Your task to perform on an android device: Open settings on Google Maps Image 0: 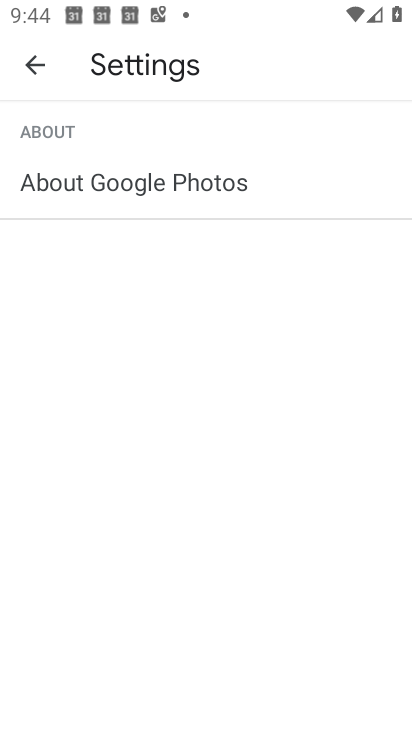
Step 0: press home button
Your task to perform on an android device: Open settings on Google Maps Image 1: 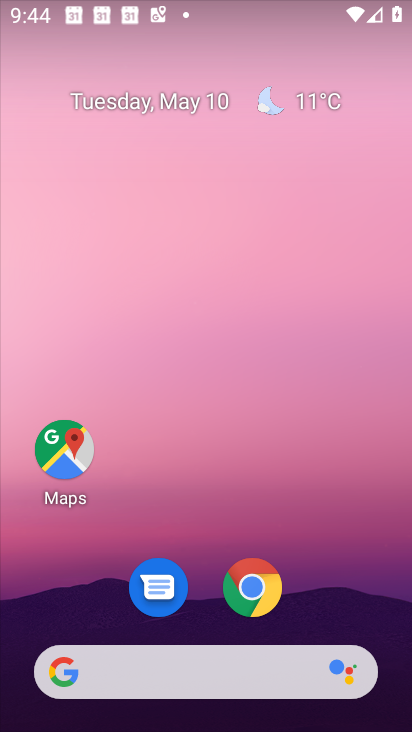
Step 1: drag from (373, 571) to (347, 56)
Your task to perform on an android device: Open settings on Google Maps Image 2: 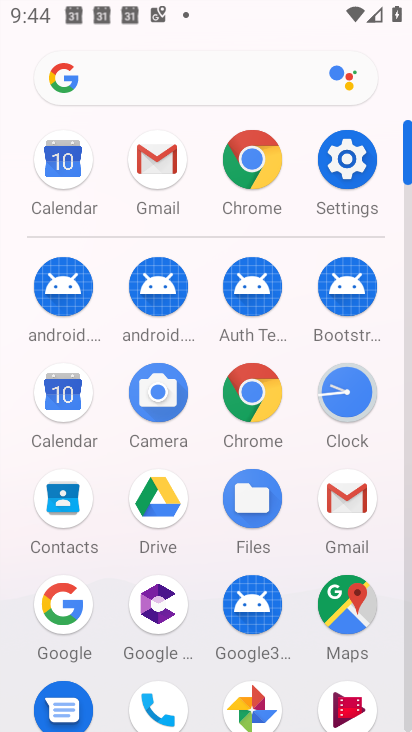
Step 2: click (338, 612)
Your task to perform on an android device: Open settings on Google Maps Image 3: 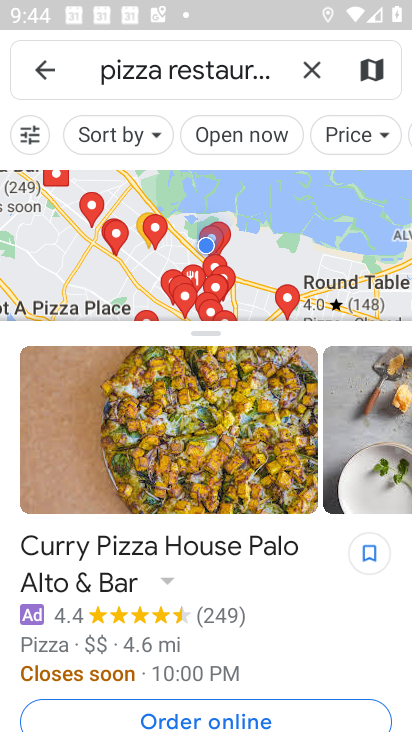
Step 3: task complete